Your task to perform on an android device: turn off wifi Image 0: 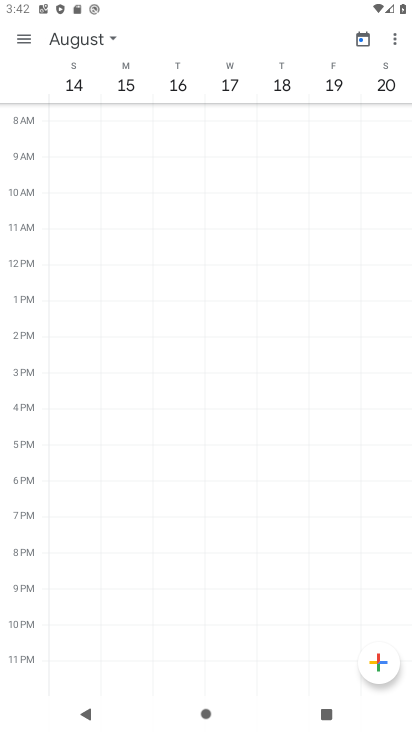
Step 0: press home button
Your task to perform on an android device: turn off wifi Image 1: 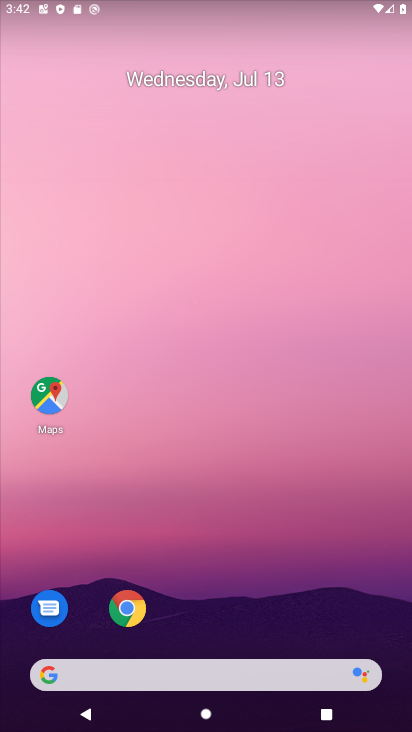
Step 1: drag from (194, 611) to (274, 153)
Your task to perform on an android device: turn off wifi Image 2: 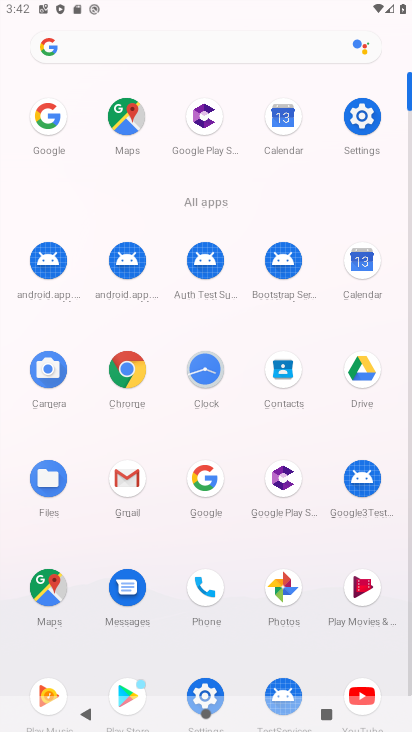
Step 2: click (218, 679)
Your task to perform on an android device: turn off wifi Image 3: 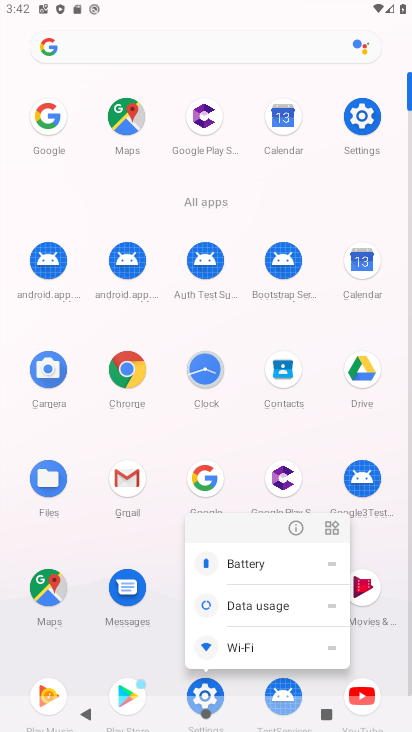
Step 3: click (212, 681)
Your task to perform on an android device: turn off wifi Image 4: 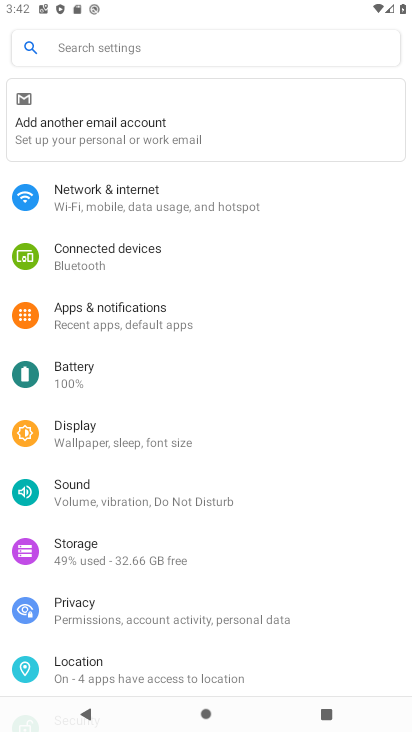
Step 4: click (185, 208)
Your task to perform on an android device: turn off wifi Image 5: 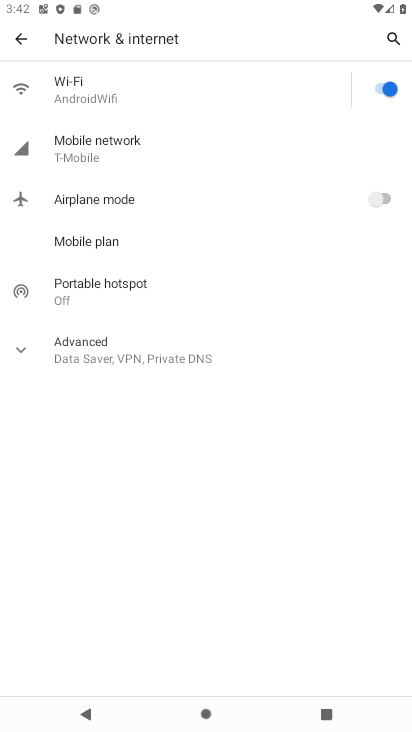
Step 5: click (380, 90)
Your task to perform on an android device: turn off wifi Image 6: 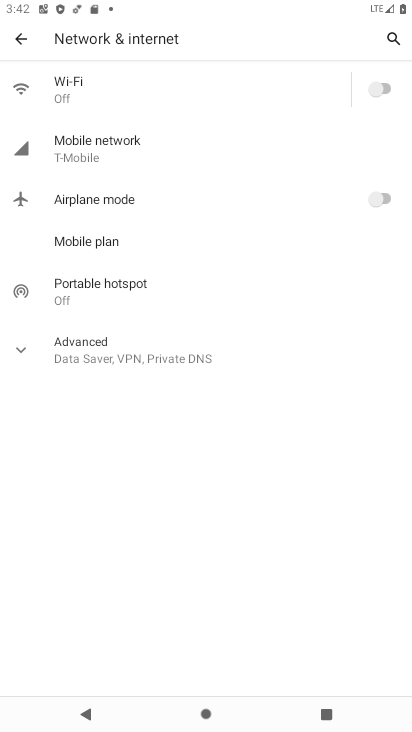
Step 6: task complete